Your task to perform on an android device: Open my contact list Image 0: 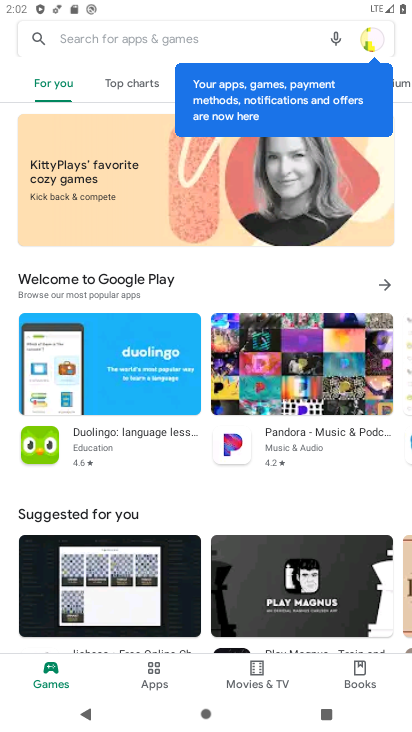
Step 0: press back button
Your task to perform on an android device: Open my contact list Image 1: 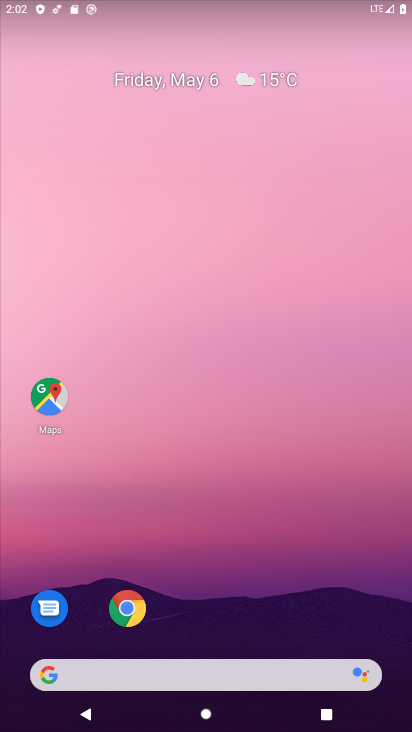
Step 1: drag from (232, 581) to (176, 30)
Your task to perform on an android device: Open my contact list Image 2: 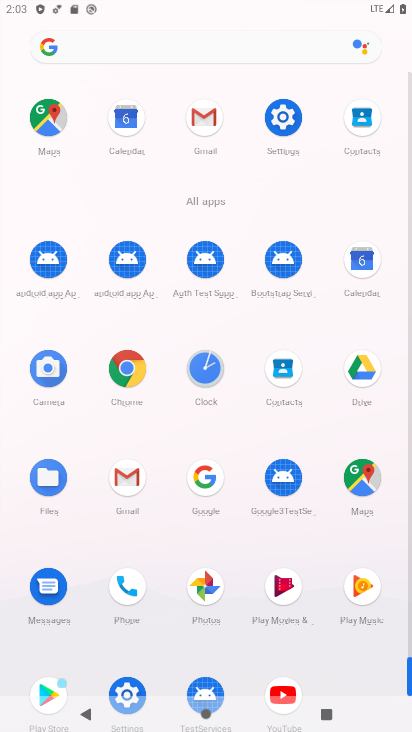
Step 2: click (362, 118)
Your task to perform on an android device: Open my contact list Image 3: 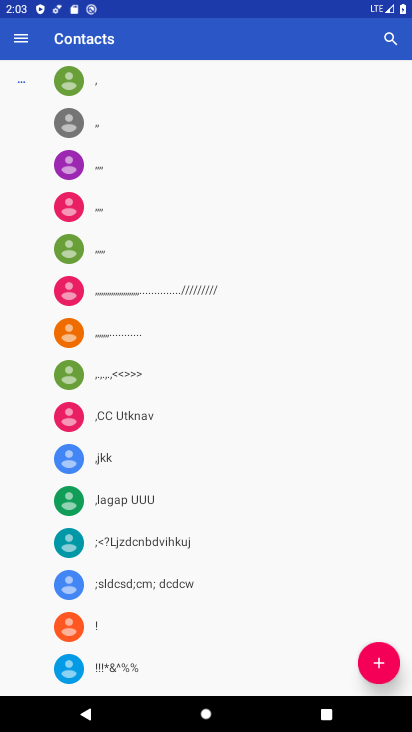
Step 3: task complete